Your task to perform on an android device: Turn on the flashlight Image 0: 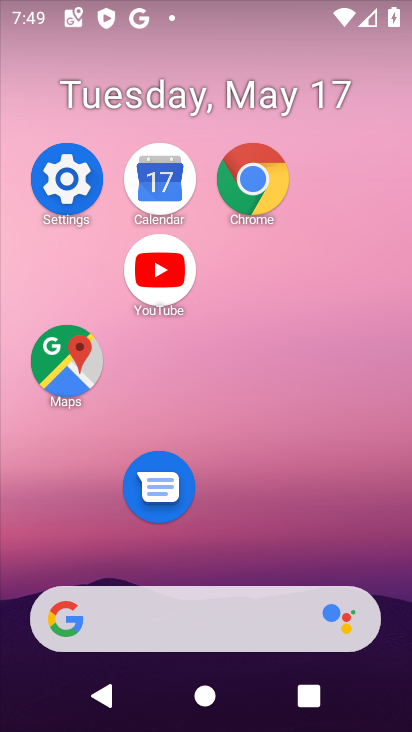
Step 0: drag from (265, 3) to (234, 360)
Your task to perform on an android device: Turn on the flashlight Image 1: 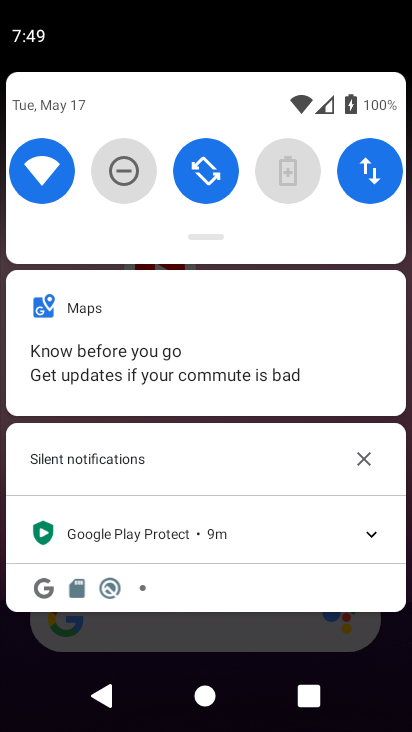
Step 1: task complete